Your task to perform on an android device: open app "AliExpress" (install if not already installed), go to login, and select forgot password Image 0: 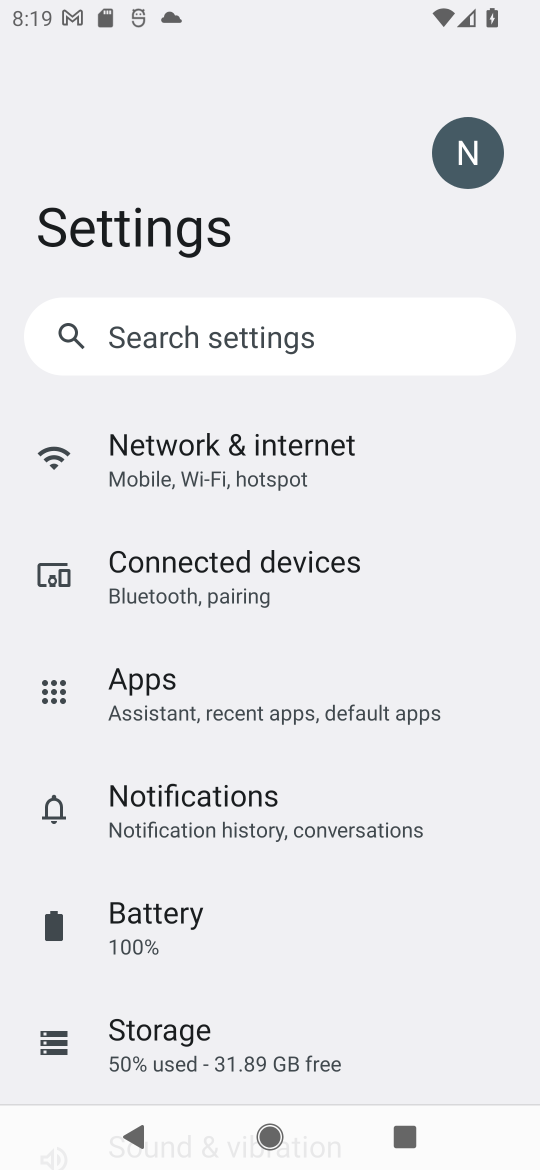
Step 0: press home button
Your task to perform on an android device: open app "AliExpress" (install if not already installed), go to login, and select forgot password Image 1: 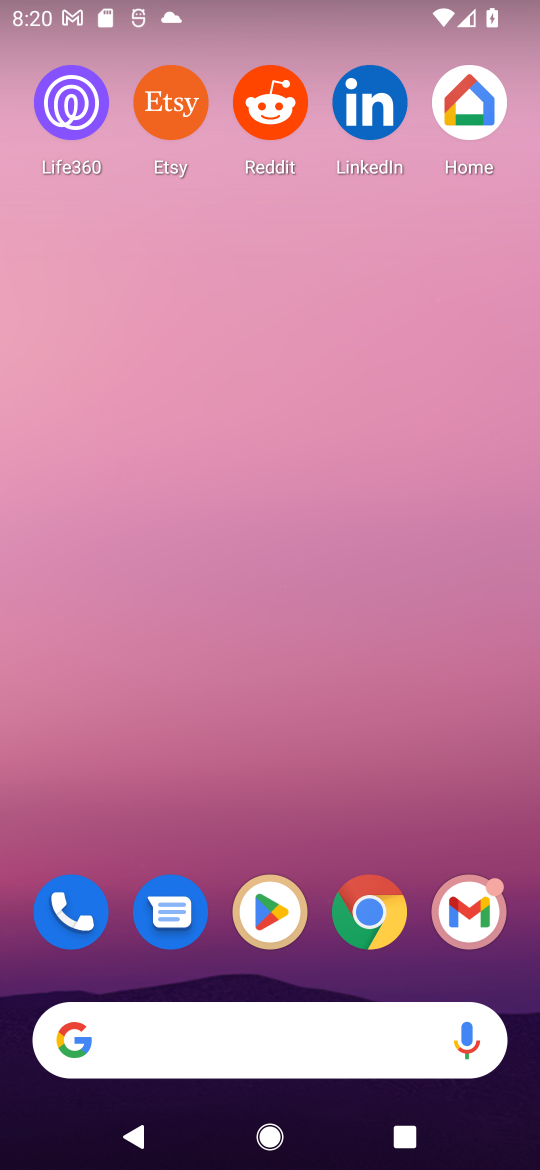
Step 1: drag from (496, 903) to (229, 66)
Your task to perform on an android device: open app "AliExpress" (install if not already installed), go to login, and select forgot password Image 2: 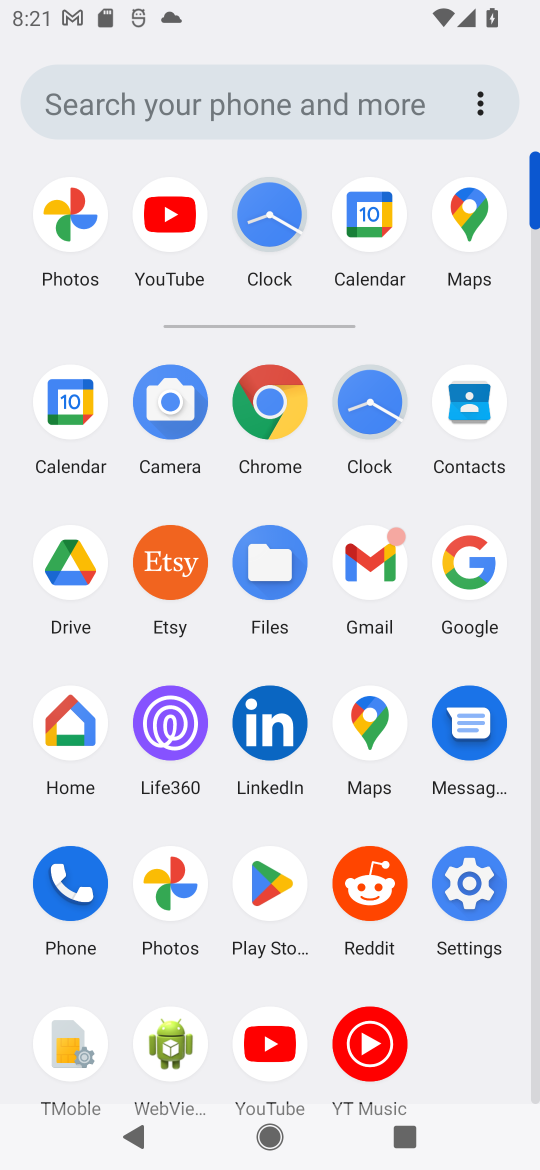
Step 2: click (255, 910)
Your task to perform on an android device: open app "AliExpress" (install if not already installed), go to login, and select forgot password Image 3: 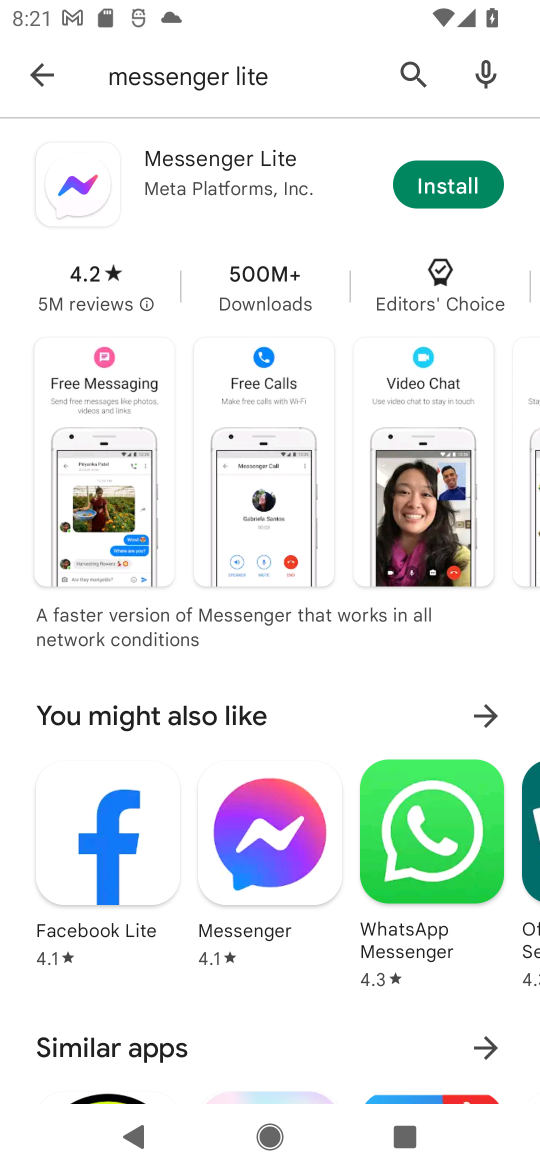
Step 3: press back button
Your task to perform on an android device: open app "AliExpress" (install if not already installed), go to login, and select forgot password Image 4: 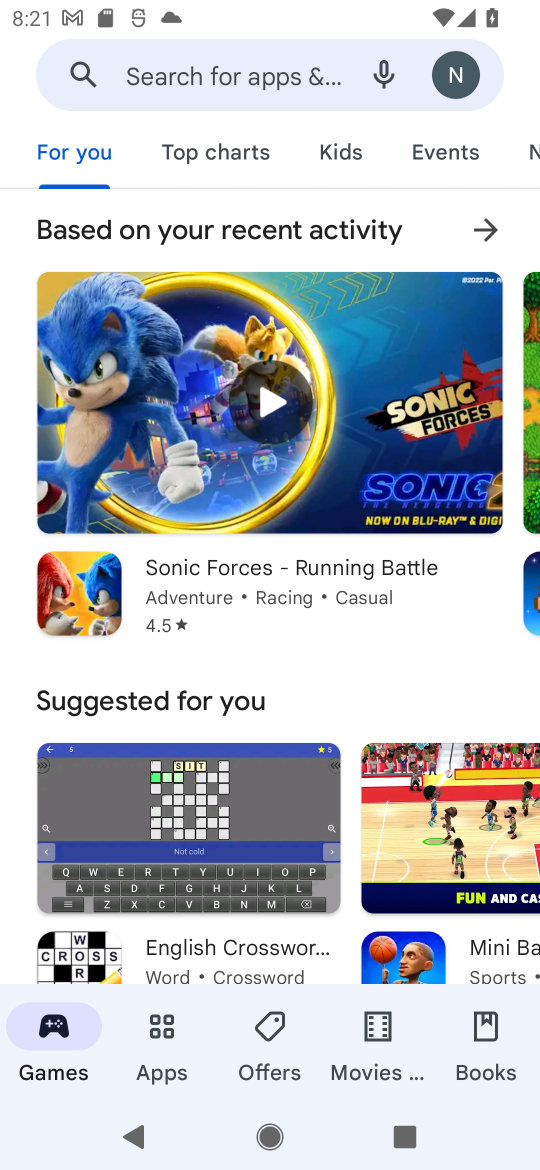
Step 4: click (163, 84)
Your task to perform on an android device: open app "AliExpress" (install if not already installed), go to login, and select forgot password Image 5: 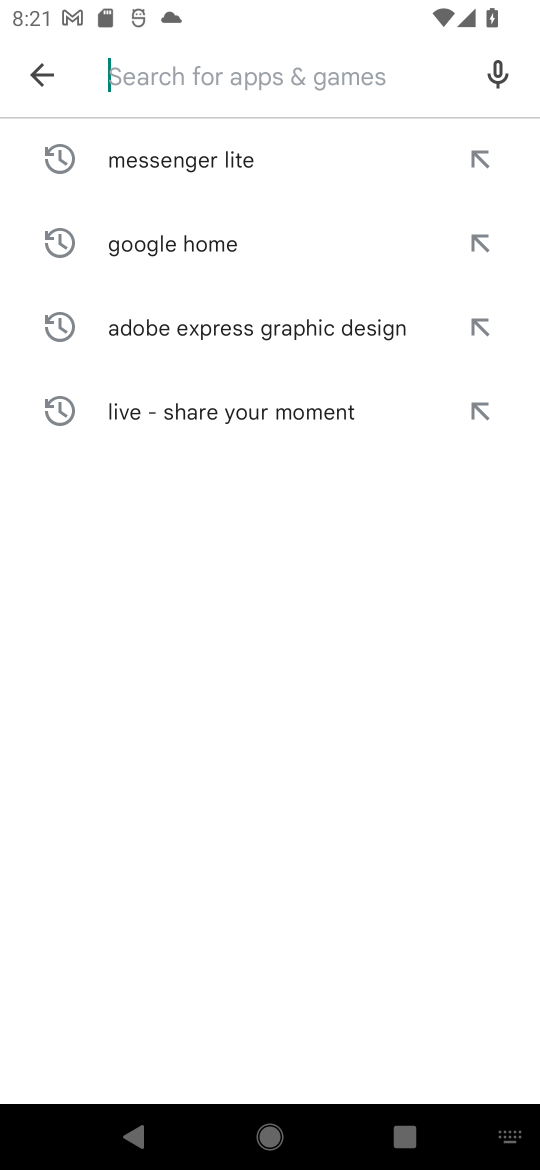
Step 5: type "AliExpress"
Your task to perform on an android device: open app "AliExpress" (install if not already installed), go to login, and select forgot password Image 6: 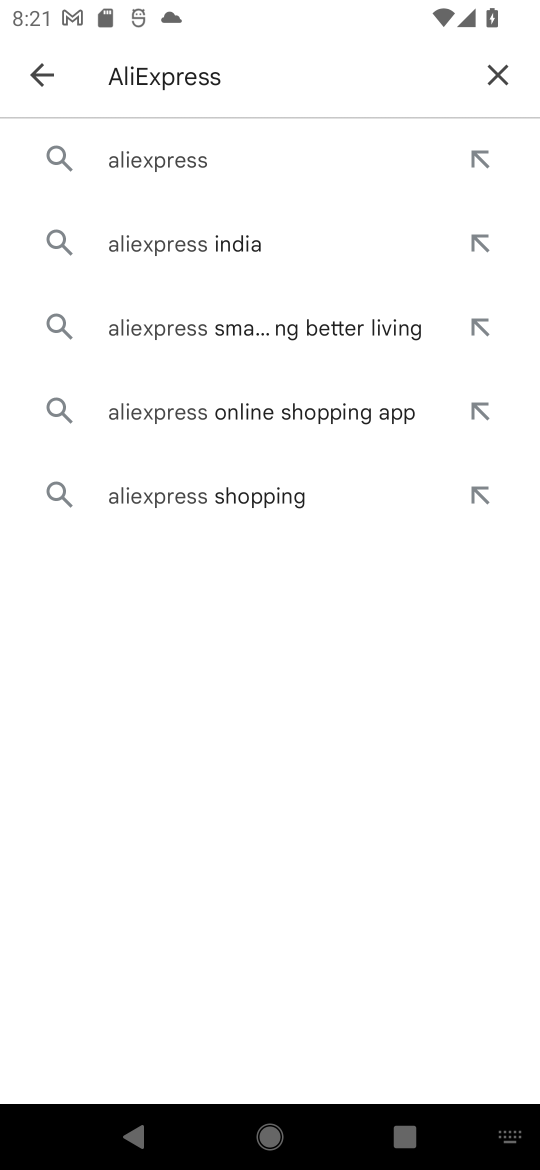
Step 6: click (156, 143)
Your task to perform on an android device: open app "AliExpress" (install if not already installed), go to login, and select forgot password Image 7: 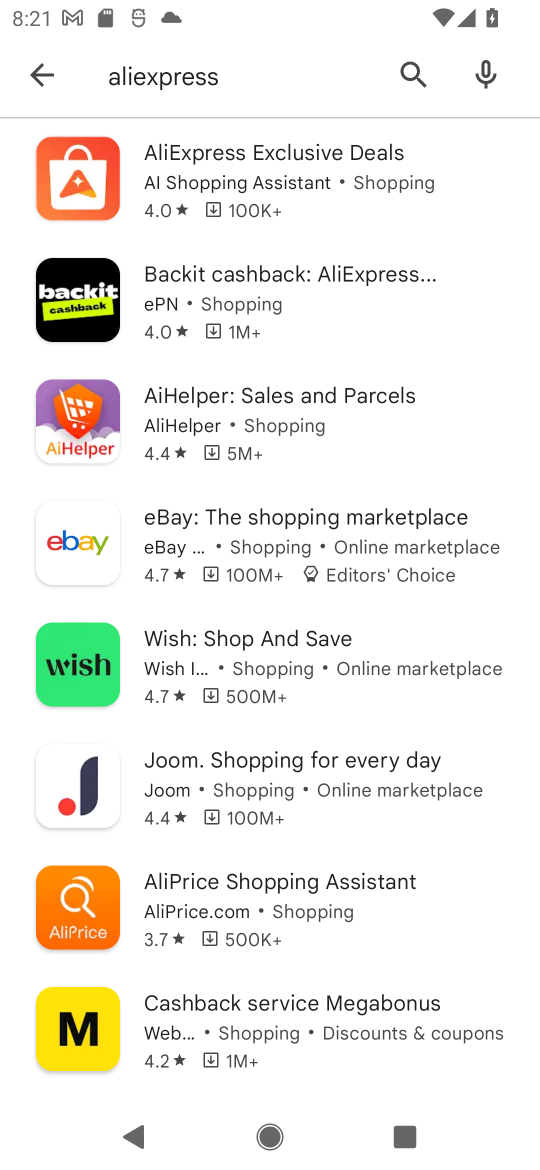
Step 7: task complete